Your task to perform on an android device: Go to Android settings Image 0: 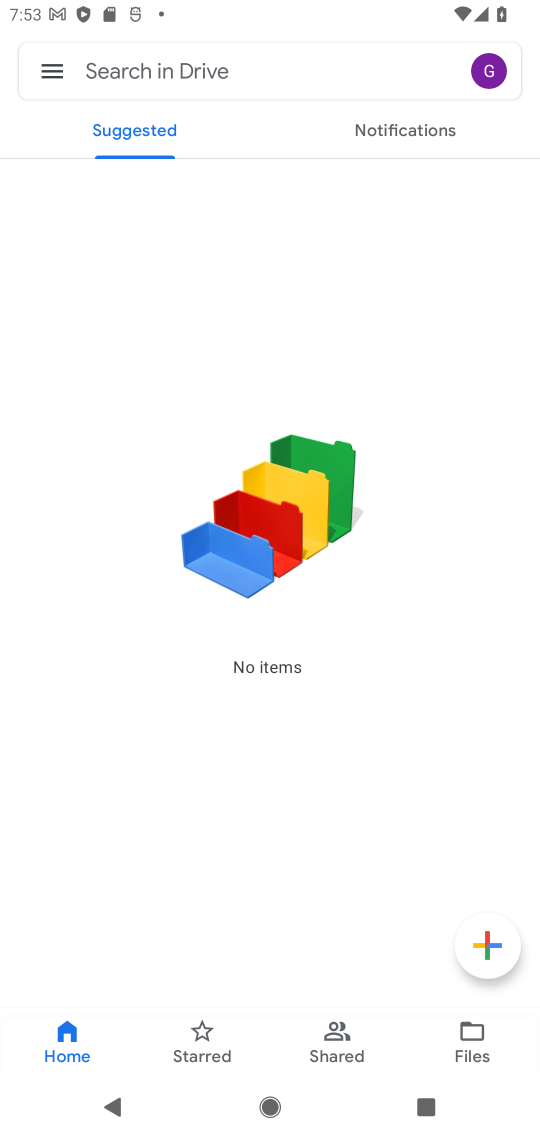
Step 0: press home button
Your task to perform on an android device: Go to Android settings Image 1: 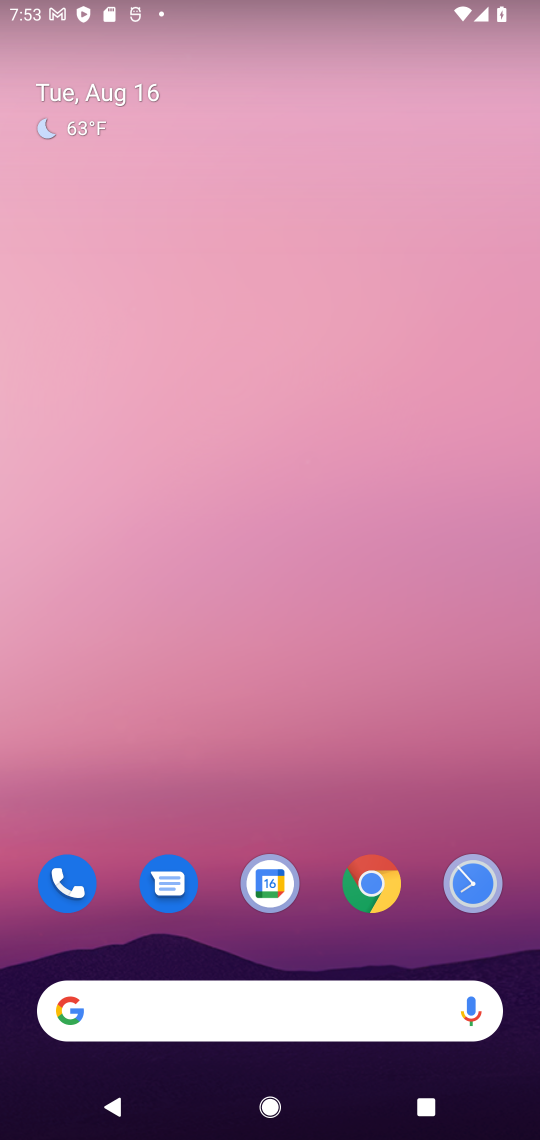
Step 1: drag from (437, 774) to (383, 71)
Your task to perform on an android device: Go to Android settings Image 2: 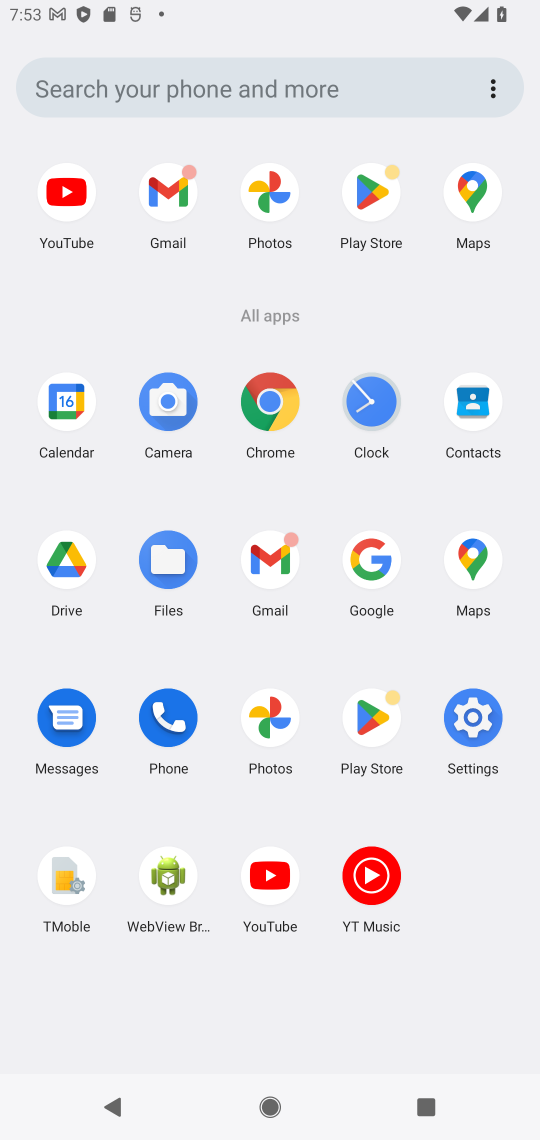
Step 2: click (476, 727)
Your task to perform on an android device: Go to Android settings Image 3: 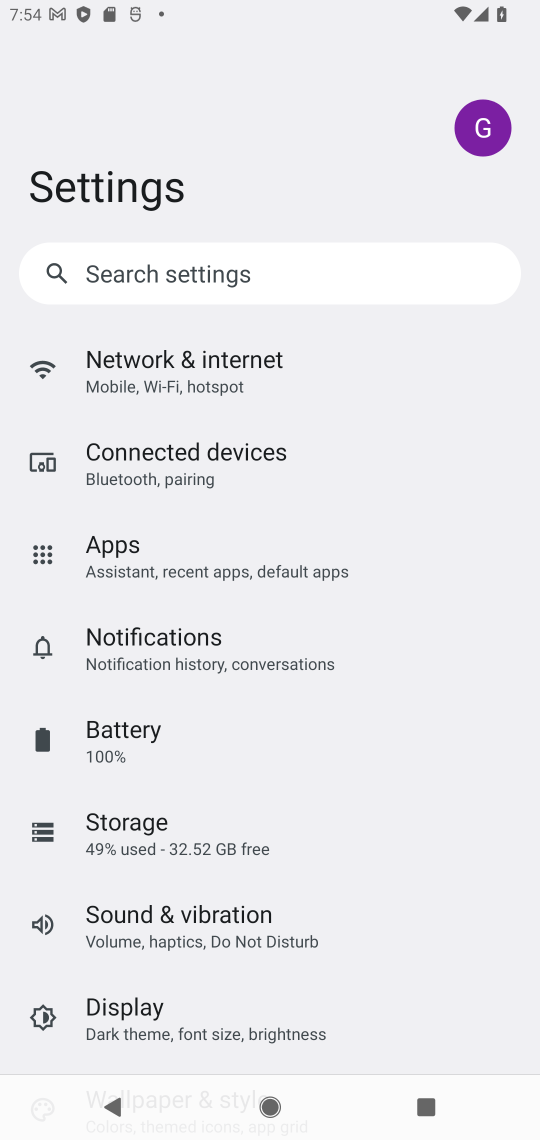
Step 3: task complete